Your task to perform on an android device: toggle translation in the chrome app Image 0: 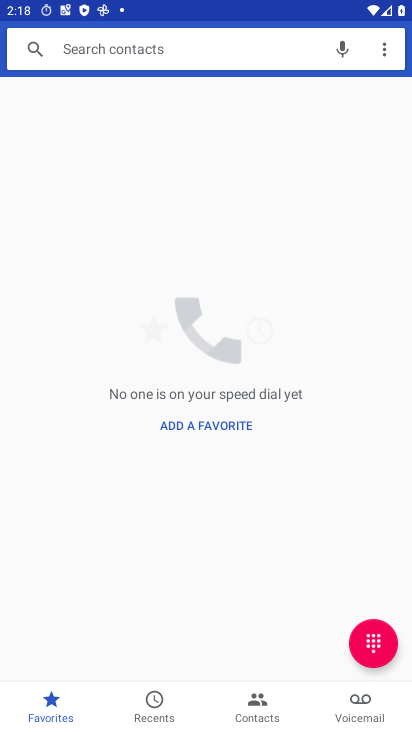
Step 0: press home button
Your task to perform on an android device: toggle translation in the chrome app Image 1: 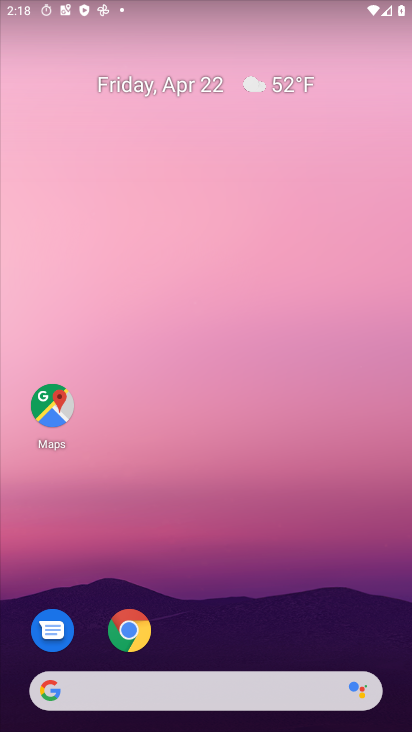
Step 1: drag from (384, 620) to (410, 48)
Your task to perform on an android device: toggle translation in the chrome app Image 2: 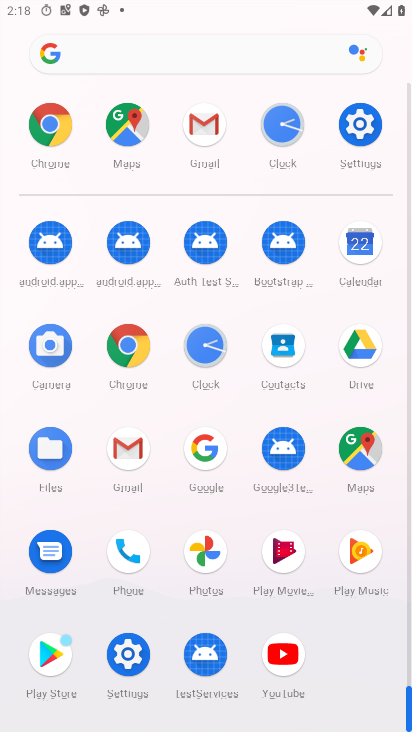
Step 2: click (119, 346)
Your task to perform on an android device: toggle translation in the chrome app Image 3: 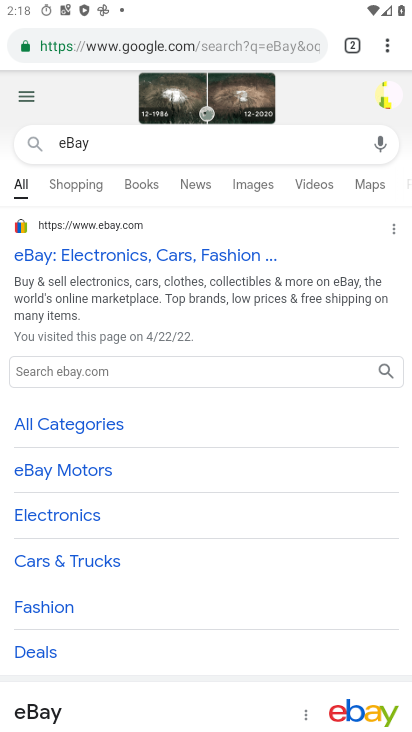
Step 3: click (387, 35)
Your task to perform on an android device: toggle translation in the chrome app Image 4: 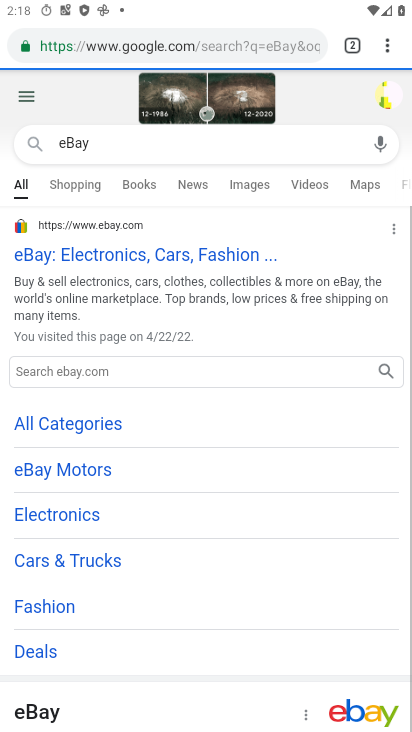
Step 4: click (387, 36)
Your task to perform on an android device: toggle translation in the chrome app Image 5: 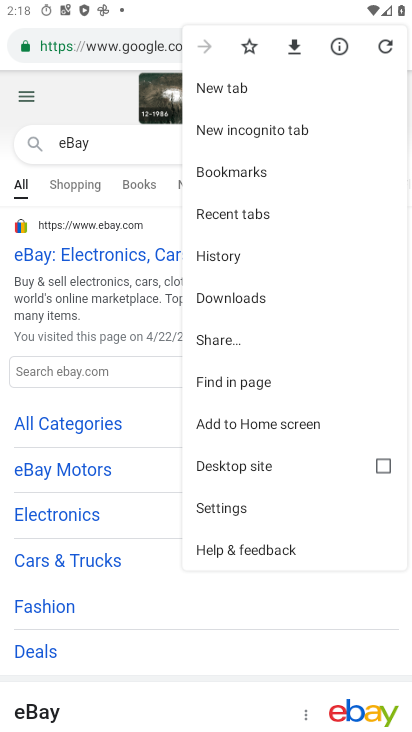
Step 5: click (216, 505)
Your task to perform on an android device: toggle translation in the chrome app Image 6: 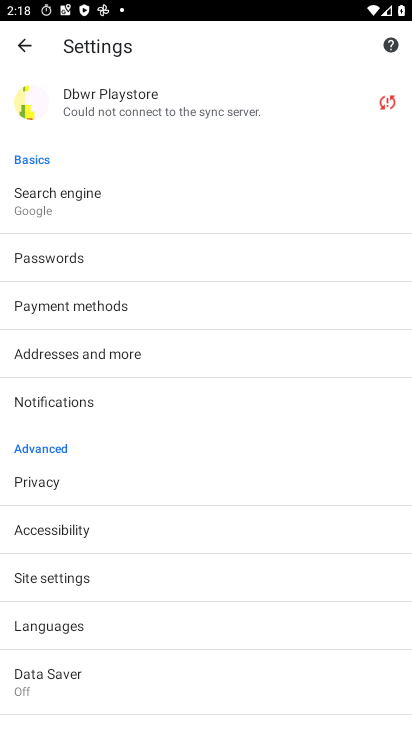
Step 6: click (69, 623)
Your task to perform on an android device: toggle translation in the chrome app Image 7: 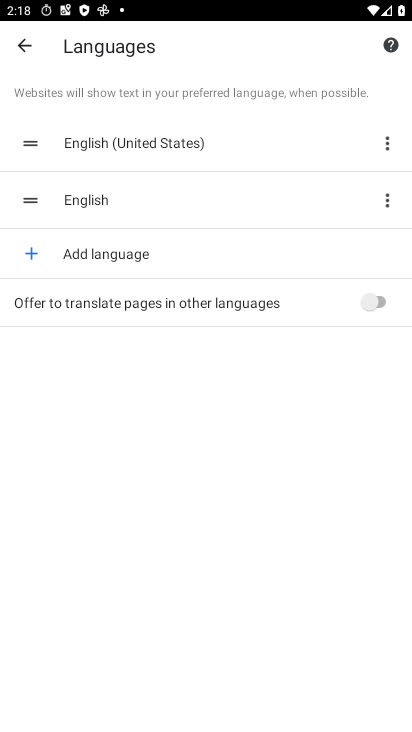
Step 7: click (381, 305)
Your task to perform on an android device: toggle translation in the chrome app Image 8: 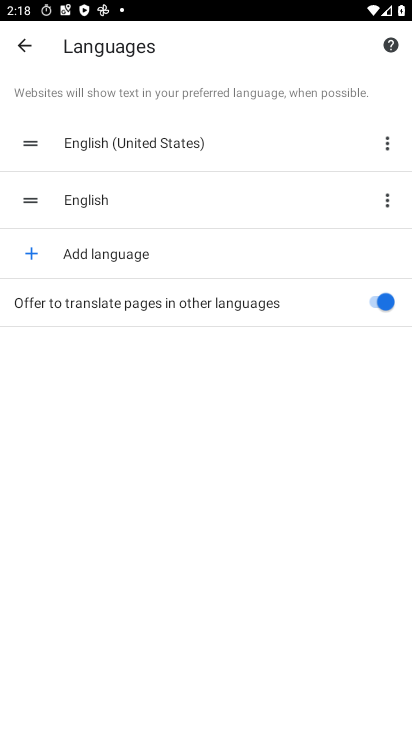
Step 8: task complete